Your task to perform on an android device: Go to Maps Image 0: 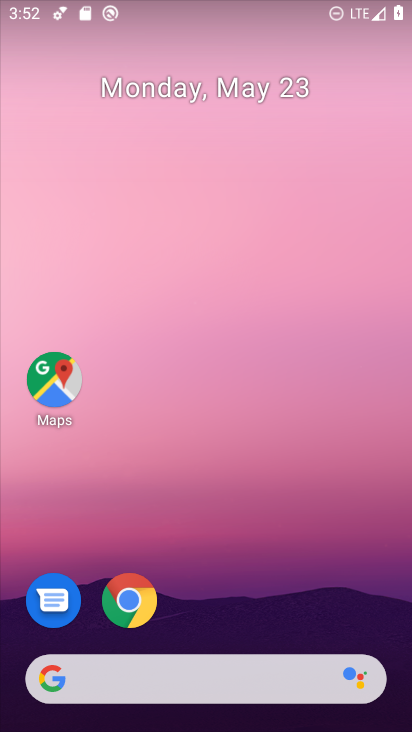
Step 0: click (49, 381)
Your task to perform on an android device: Go to Maps Image 1: 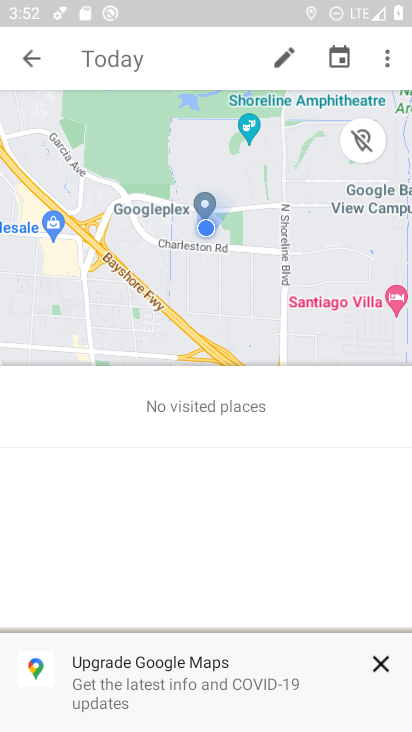
Step 1: click (36, 68)
Your task to perform on an android device: Go to Maps Image 2: 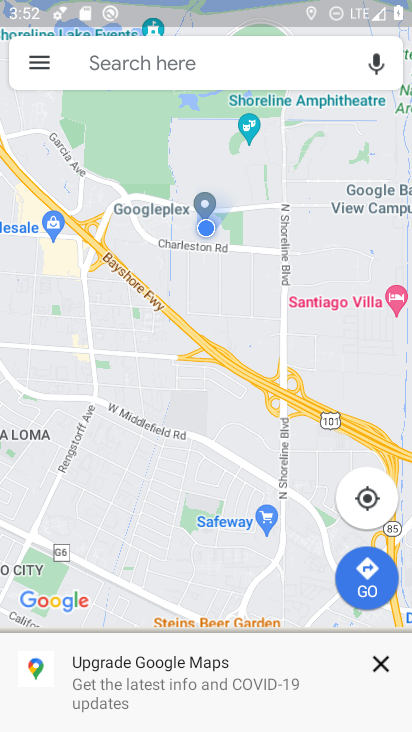
Step 2: task complete